Your task to perform on an android device: turn on notifications settings in the gmail app Image 0: 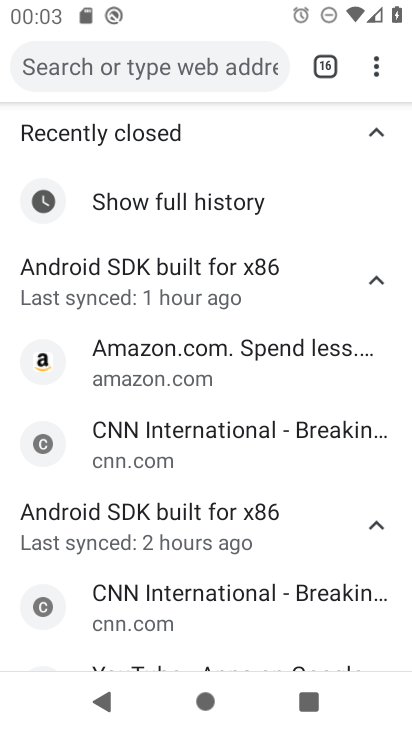
Step 0: press home button
Your task to perform on an android device: turn on notifications settings in the gmail app Image 1: 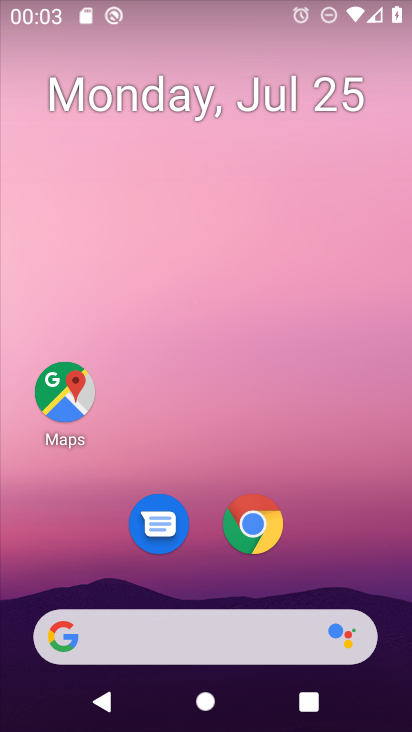
Step 1: drag from (159, 642) to (253, 172)
Your task to perform on an android device: turn on notifications settings in the gmail app Image 2: 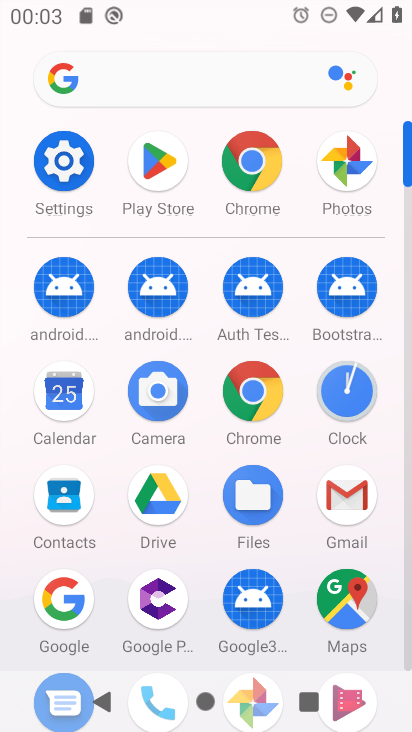
Step 2: click (354, 496)
Your task to perform on an android device: turn on notifications settings in the gmail app Image 3: 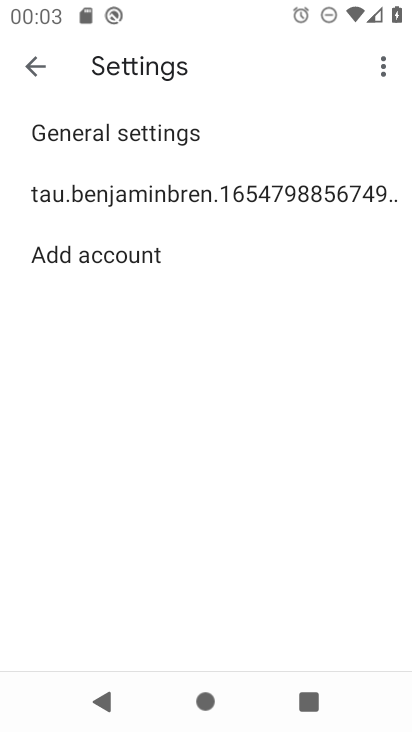
Step 3: click (248, 192)
Your task to perform on an android device: turn on notifications settings in the gmail app Image 4: 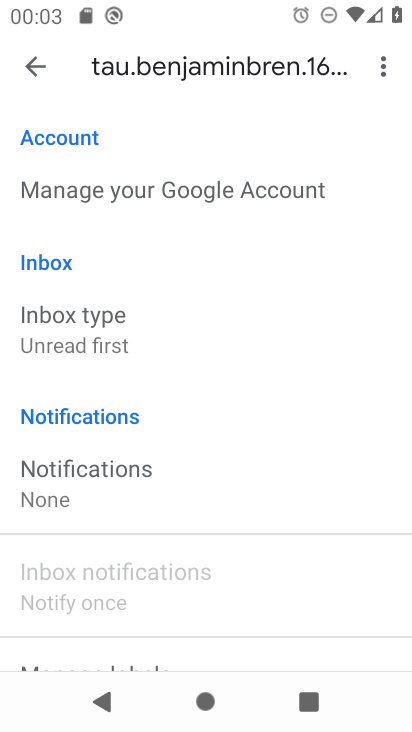
Step 4: drag from (172, 510) to (242, 256)
Your task to perform on an android device: turn on notifications settings in the gmail app Image 5: 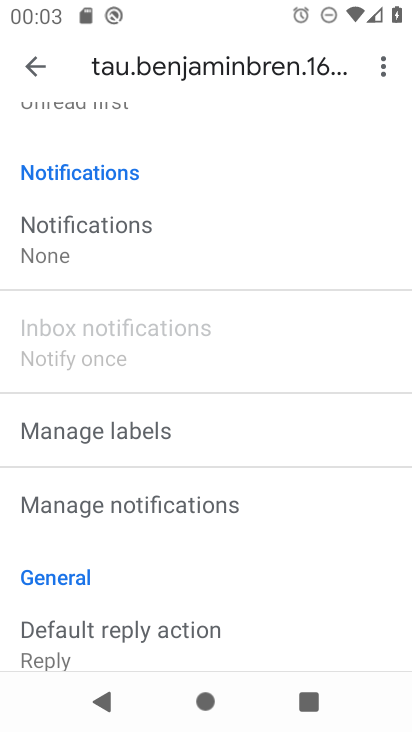
Step 5: click (84, 249)
Your task to perform on an android device: turn on notifications settings in the gmail app Image 6: 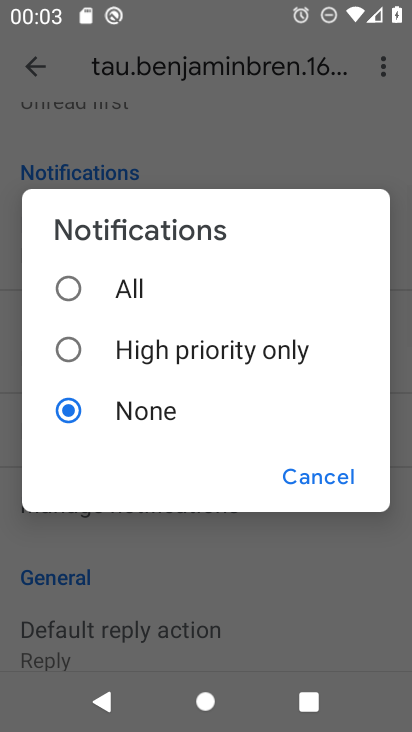
Step 6: click (71, 283)
Your task to perform on an android device: turn on notifications settings in the gmail app Image 7: 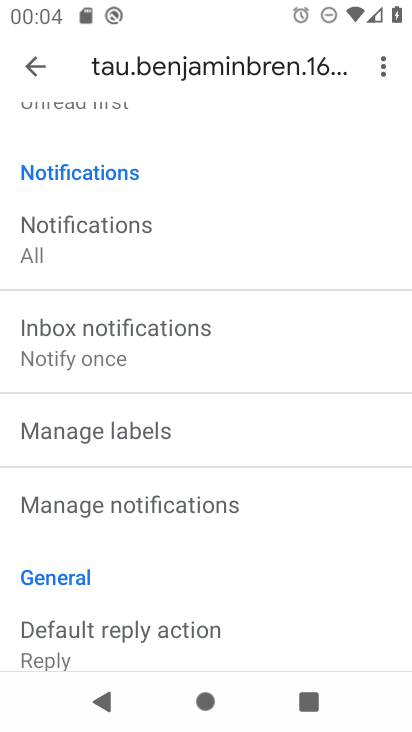
Step 7: task complete